Your task to perform on an android device: Empty the shopping cart on walmart.com. Image 0: 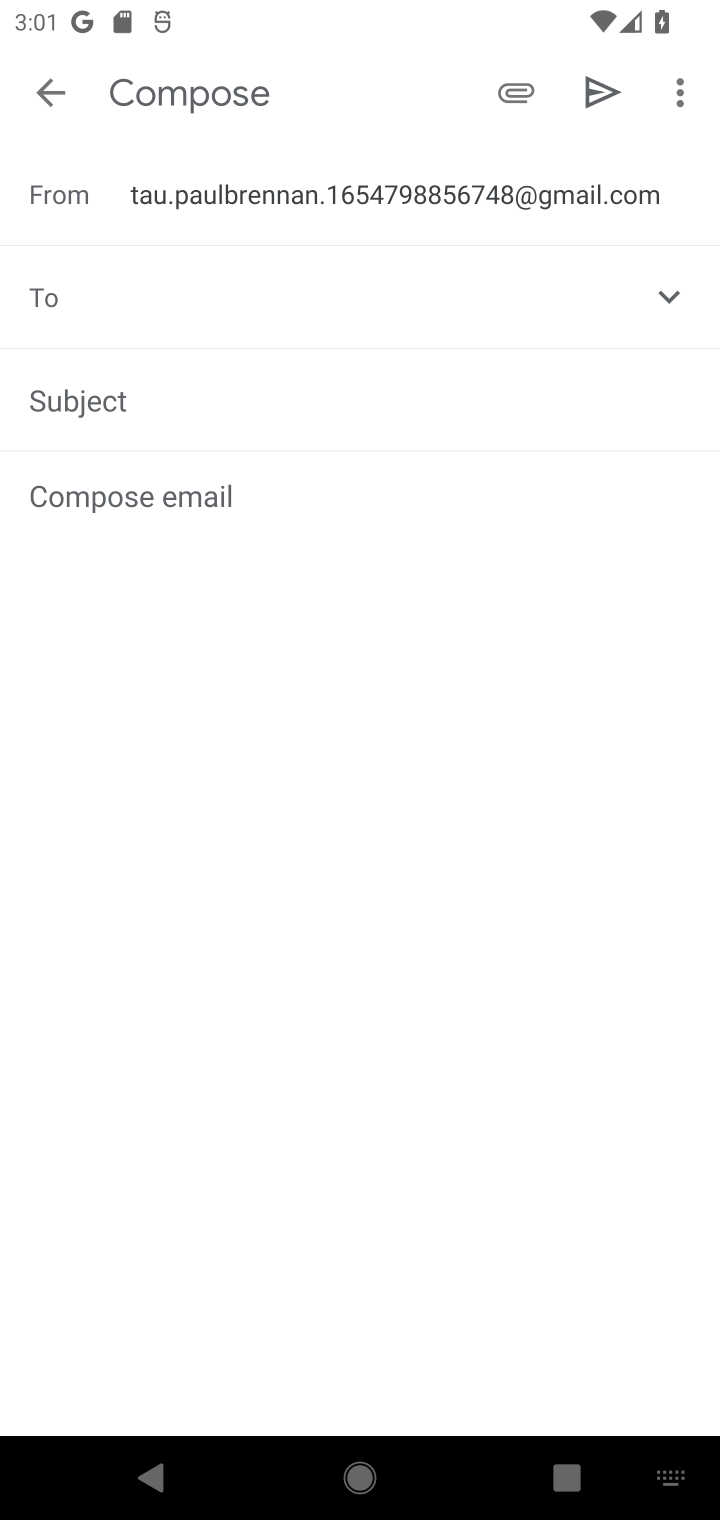
Step 0: press home button
Your task to perform on an android device: Empty the shopping cart on walmart.com. Image 1: 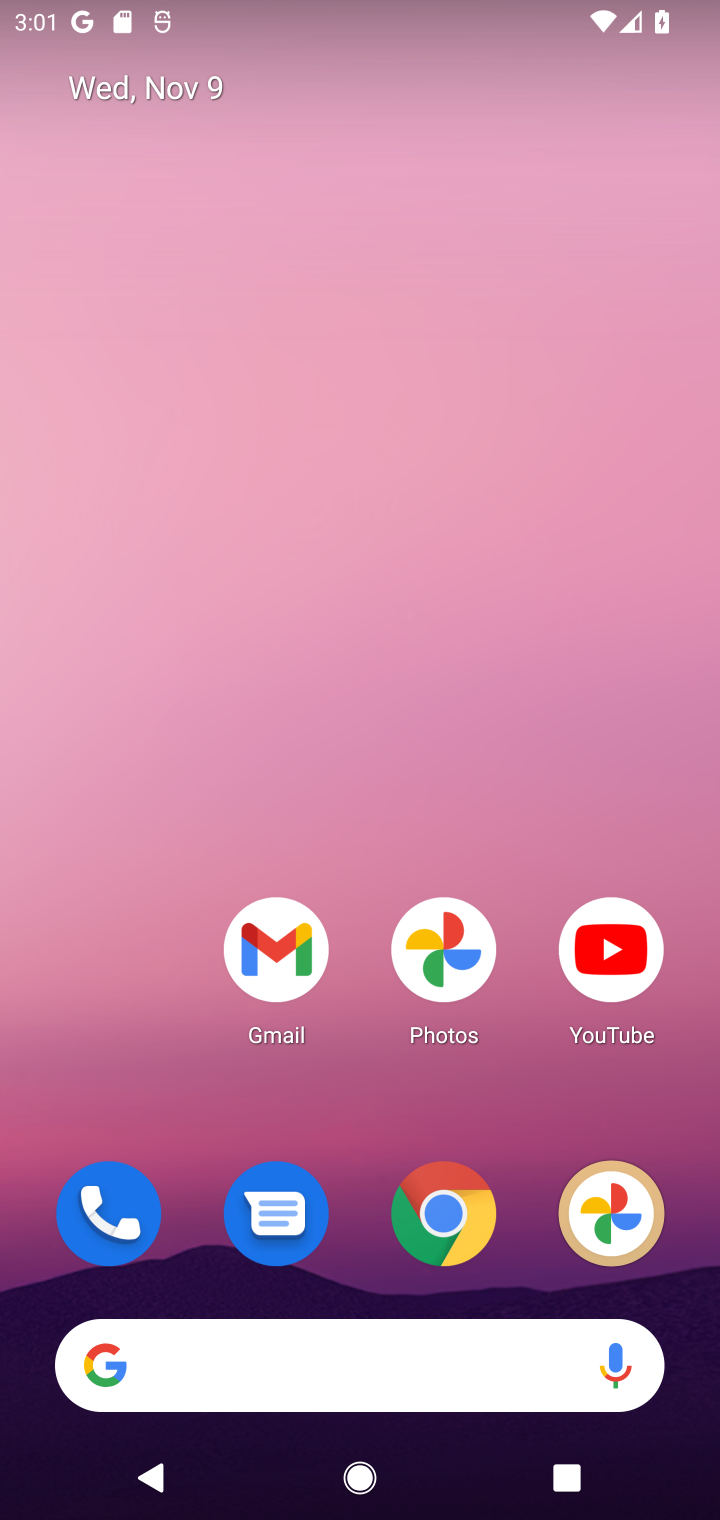
Step 1: click (442, 1217)
Your task to perform on an android device: Empty the shopping cart on walmart.com. Image 2: 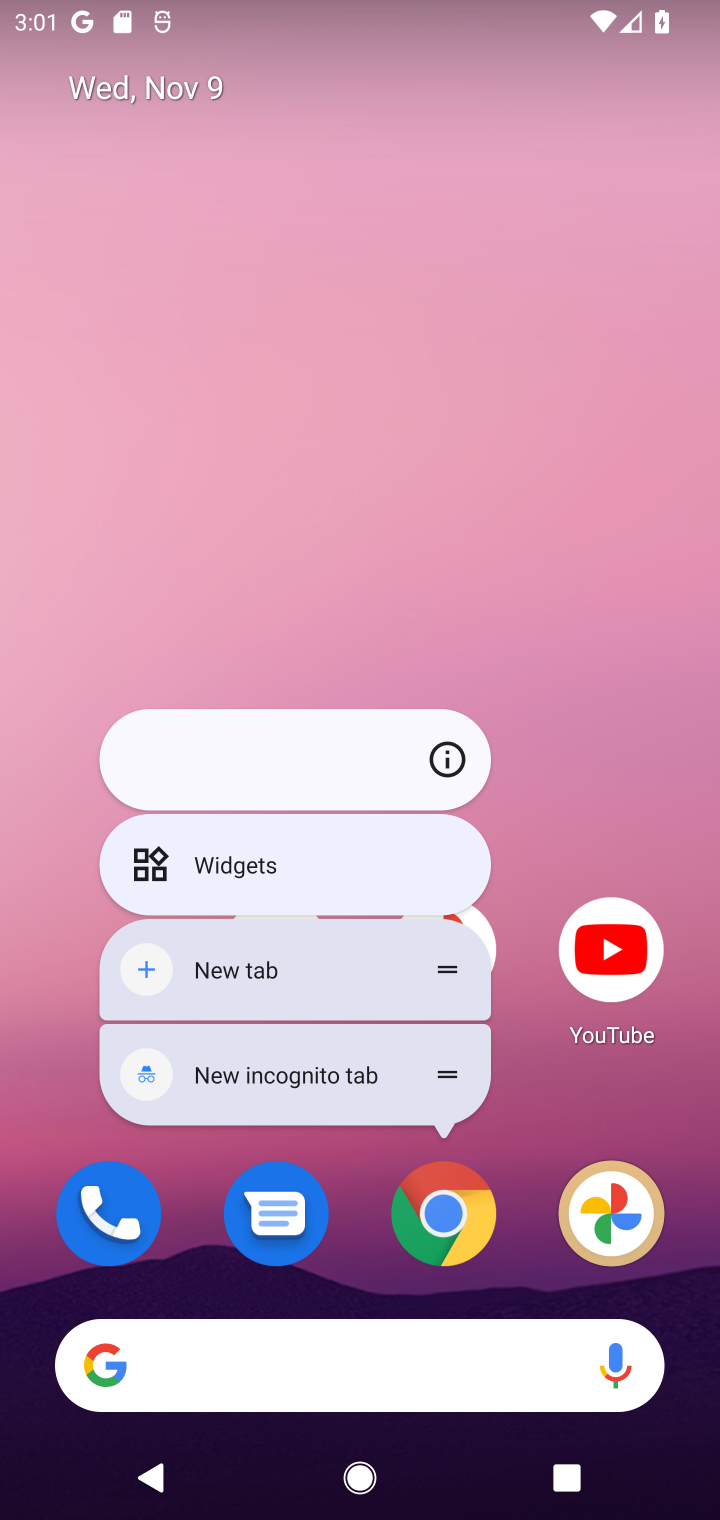
Step 2: click (450, 1219)
Your task to perform on an android device: Empty the shopping cart on walmart.com. Image 3: 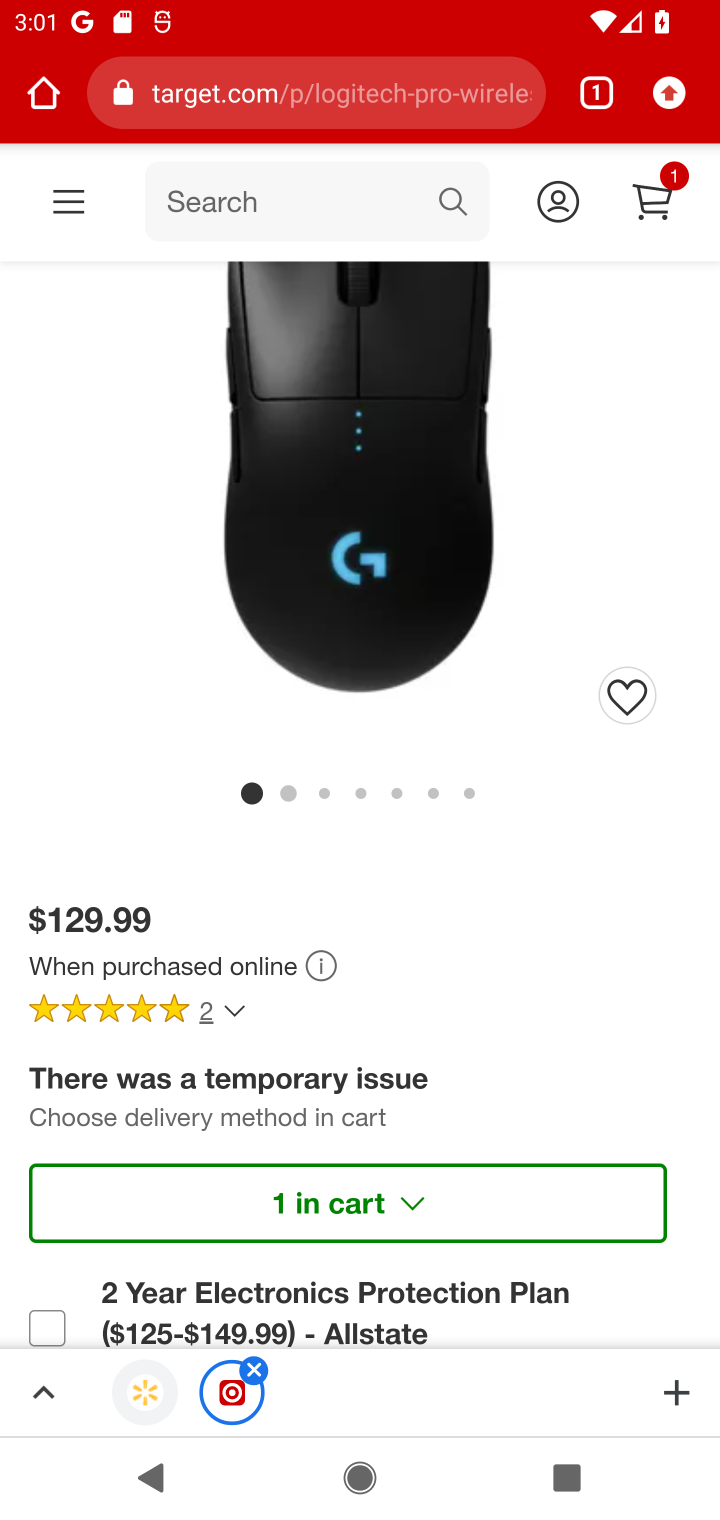
Step 3: click (267, 84)
Your task to perform on an android device: Empty the shopping cart on walmart.com. Image 4: 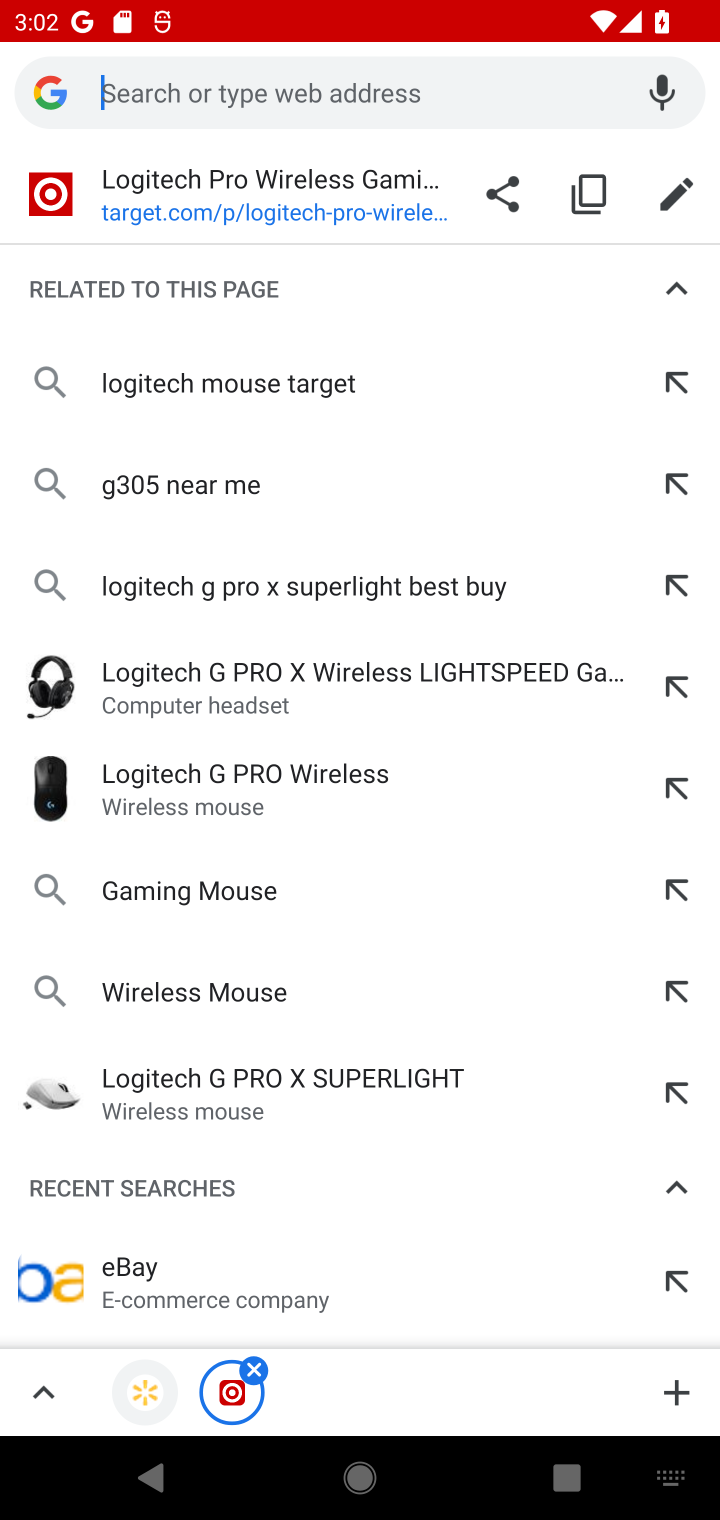
Step 4: type "walmart.com"
Your task to perform on an android device: Empty the shopping cart on walmart.com. Image 5: 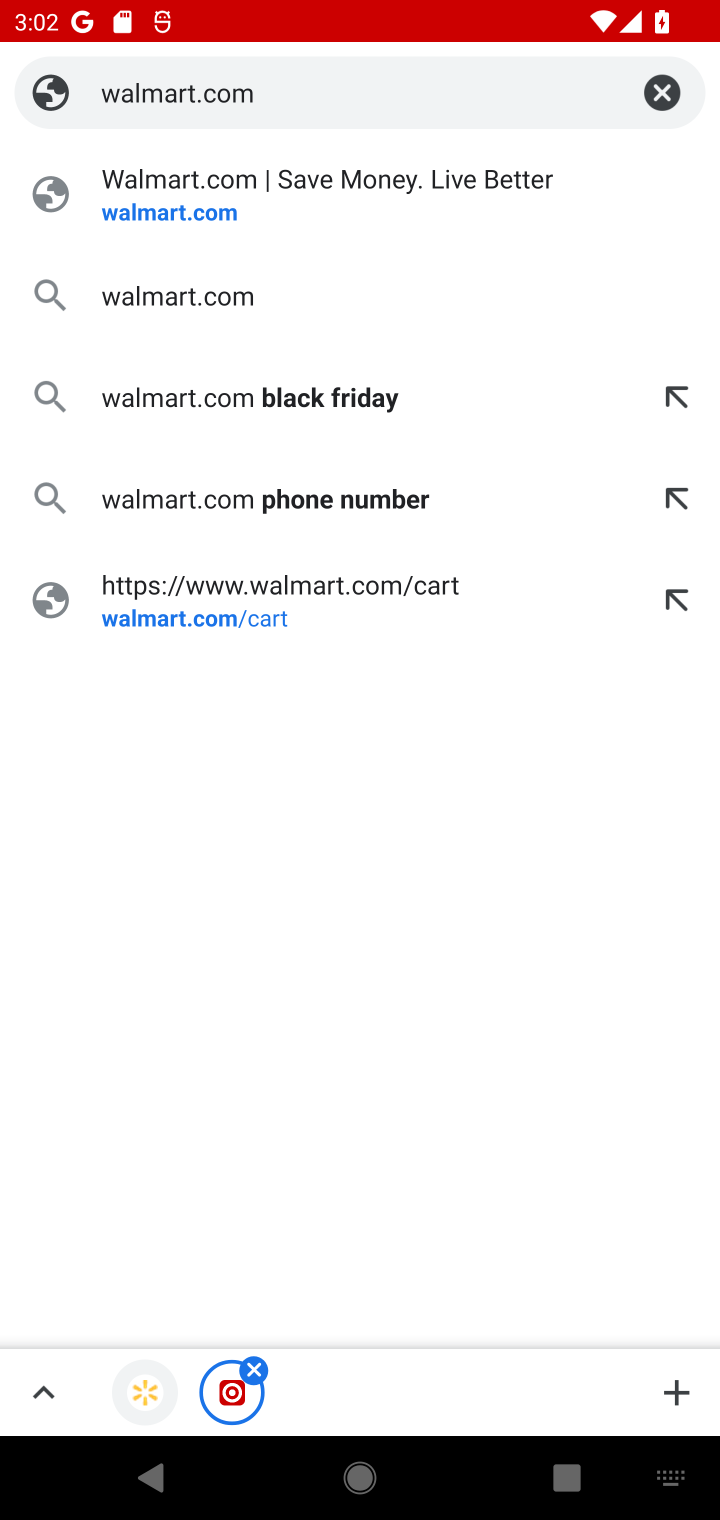
Step 5: type ""
Your task to perform on an android device: Empty the shopping cart on walmart.com. Image 6: 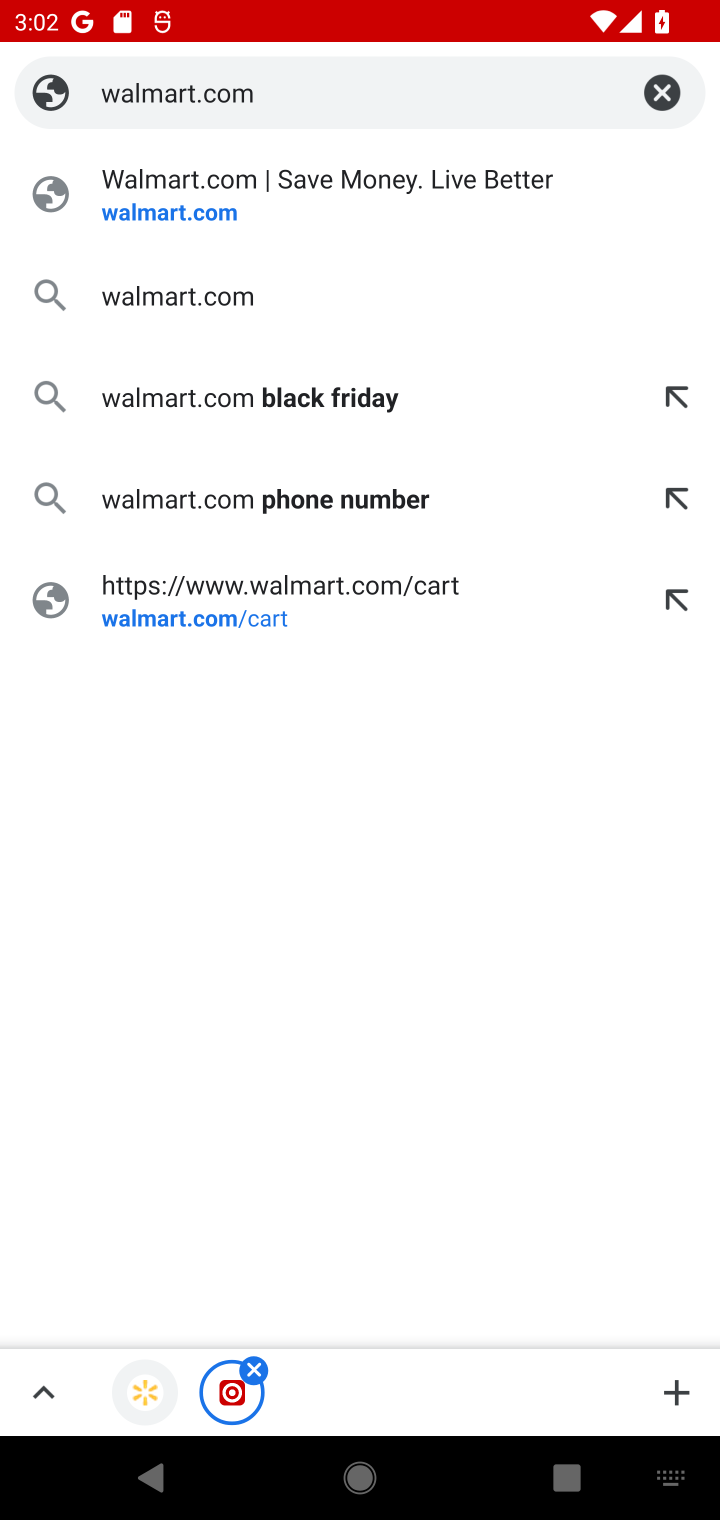
Step 6: click (179, 301)
Your task to perform on an android device: Empty the shopping cart on walmart.com. Image 7: 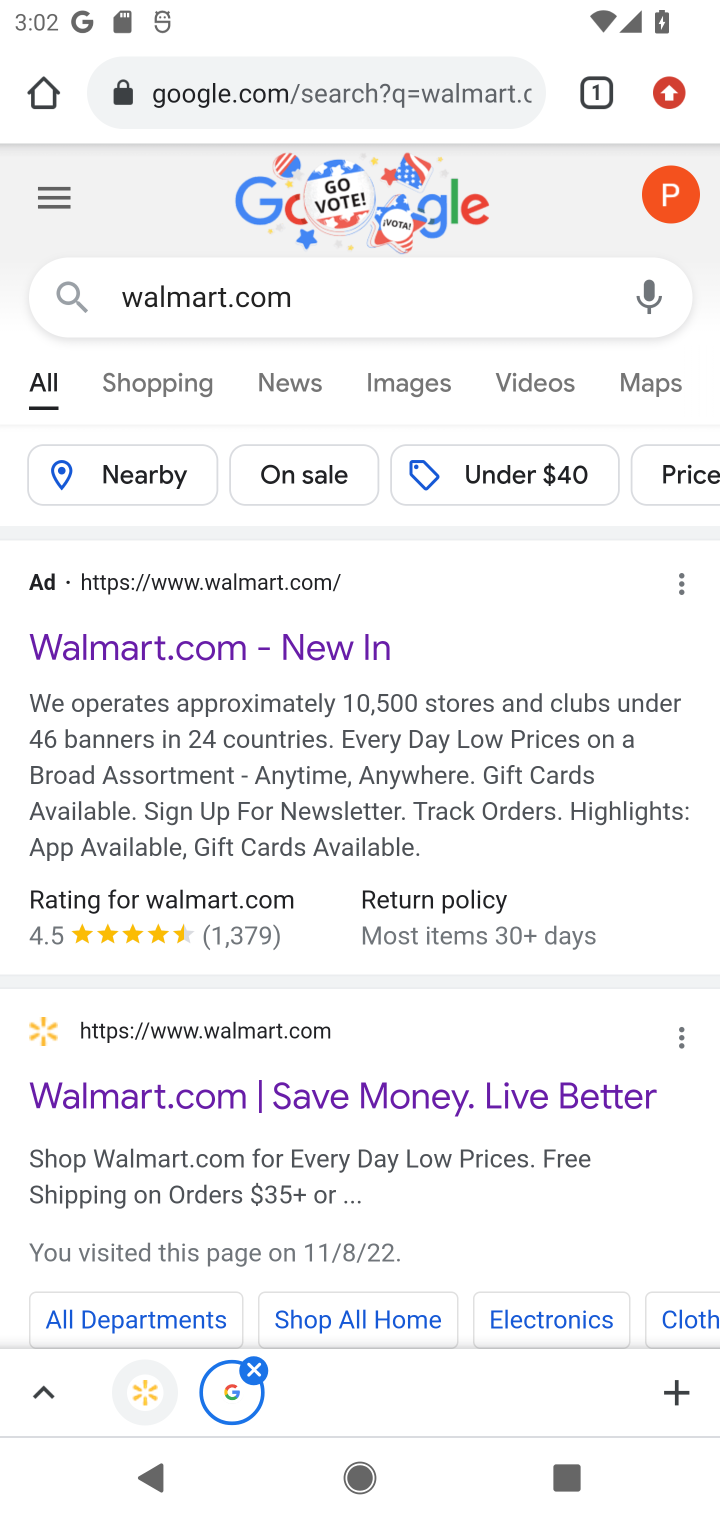
Step 7: click (280, 642)
Your task to perform on an android device: Empty the shopping cart on walmart.com. Image 8: 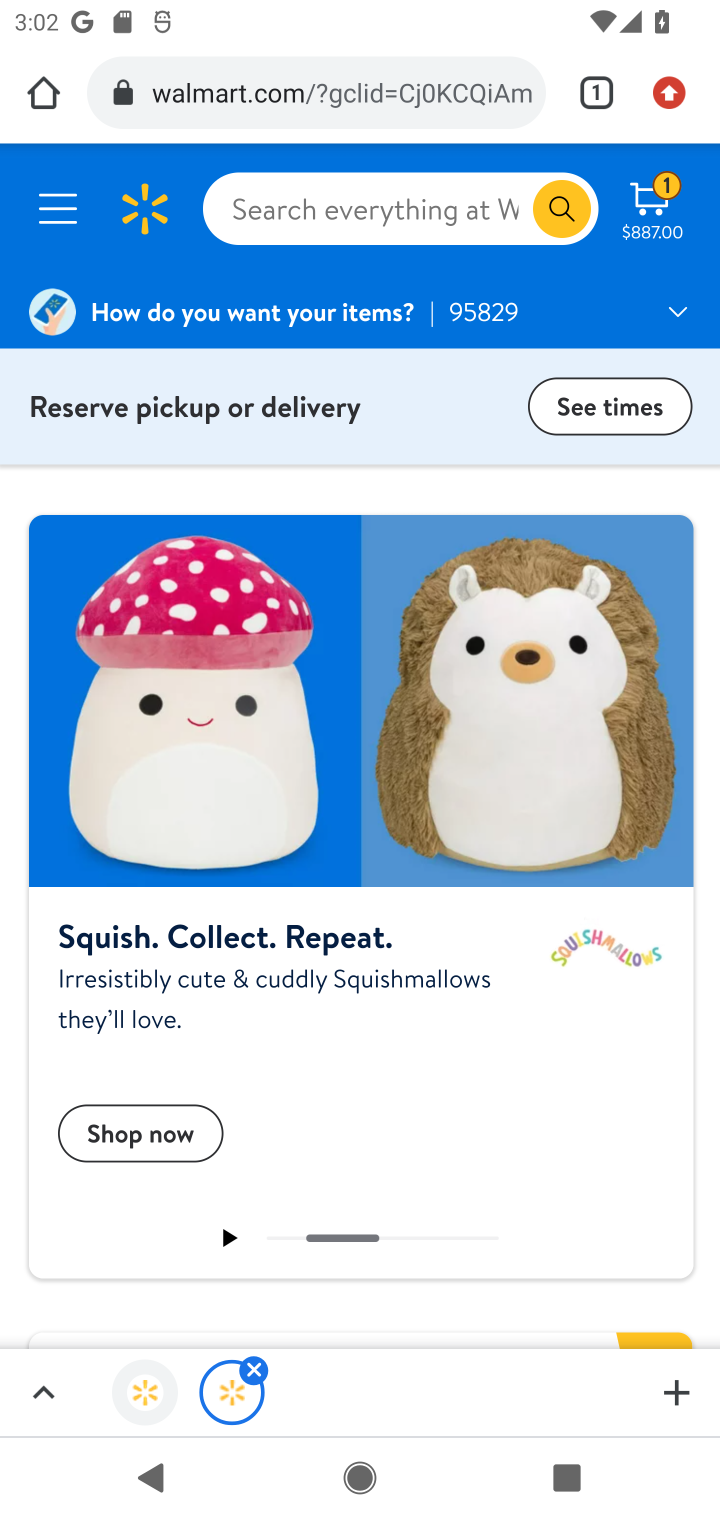
Step 8: click (646, 207)
Your task to perform on an android device: Empty the shopping cart on walmart.com. Image 9: 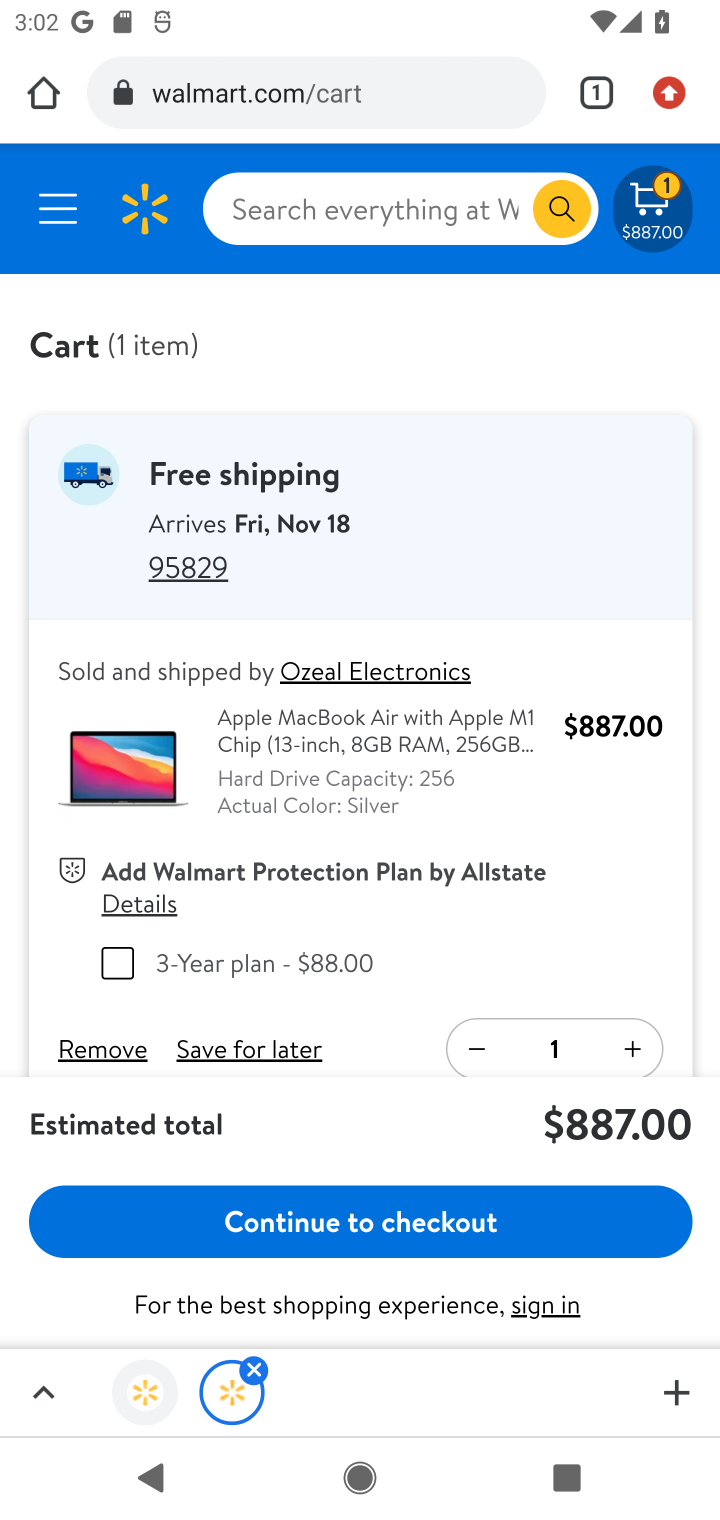
Step 9: click (112, 1055)
Your task to perform on an android device: Empty the shopping cart on walmart.com. Image 10: 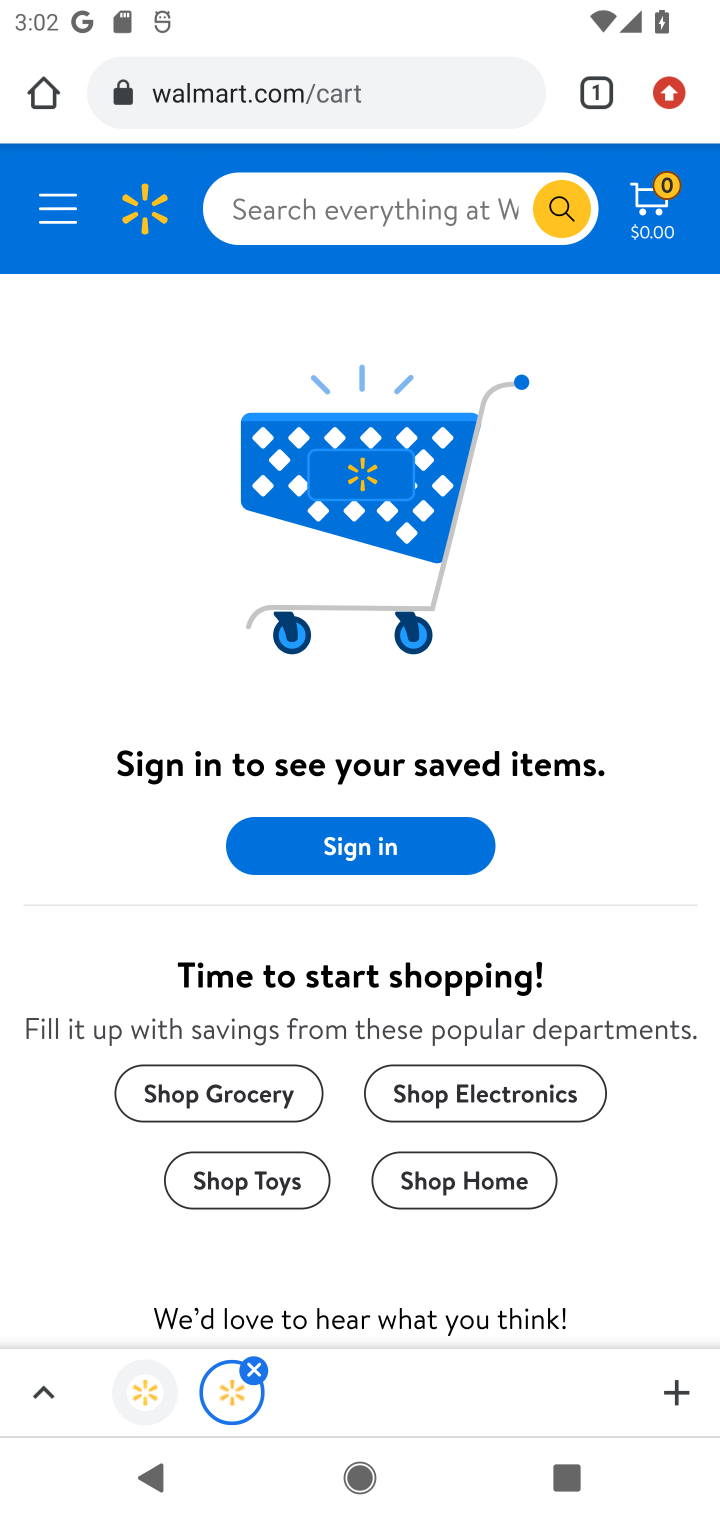
Step 10: task complete